Your task to perform on an android device: Open CNN.com Image 0: 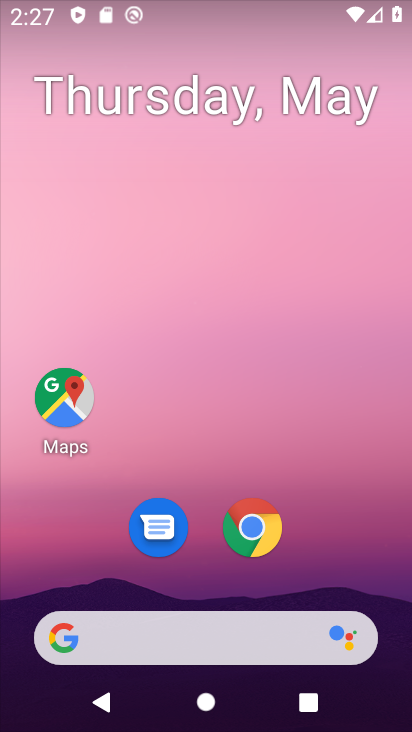
Step 0: click (265, 534)
Your task to perform on an android device: Open CNN.com Image 1: 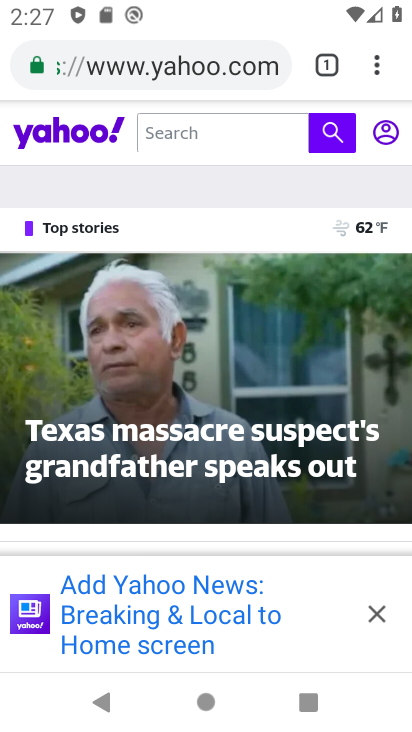
Step 1: click (197, 80)
Your task to perform on an android device: Open CNN.com Image 2: 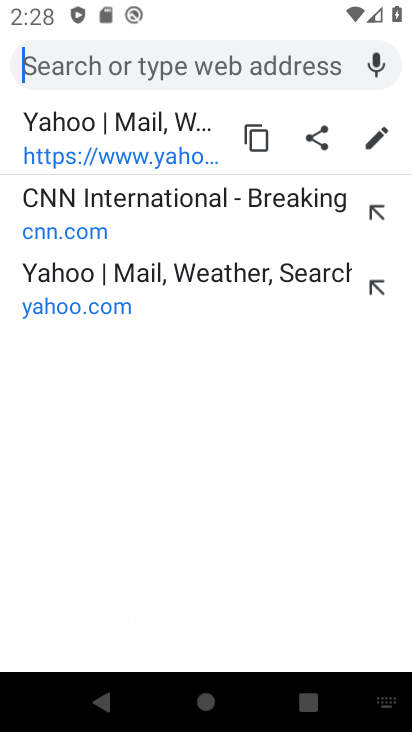
Step 2: type "CNN.com"
Your task to perform on an android device: Open CNN.com Image 3: 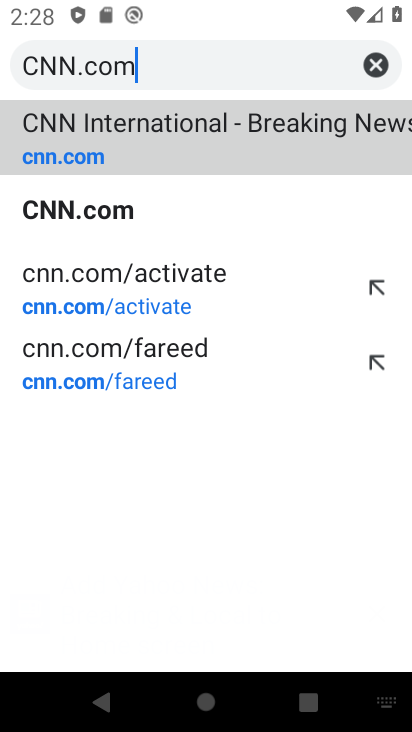
Step 3: click (78, 123)
Your task to perform on an android device: Open CNN.com Image 4: 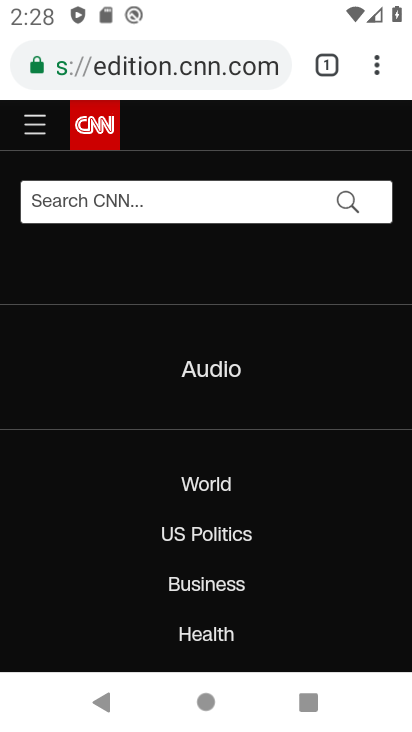
Step 4: task complete